Your task to perform on an android device: Go to sound settings Image 0: 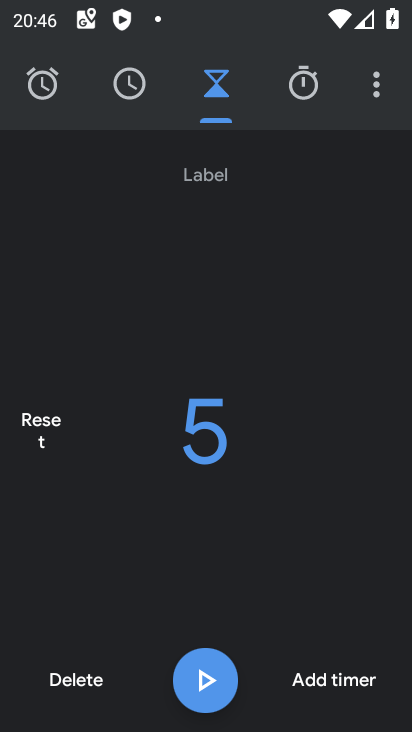
Step 0: click (393, 86)
Your task to perform on an android device: Go to sound settings Image 1: 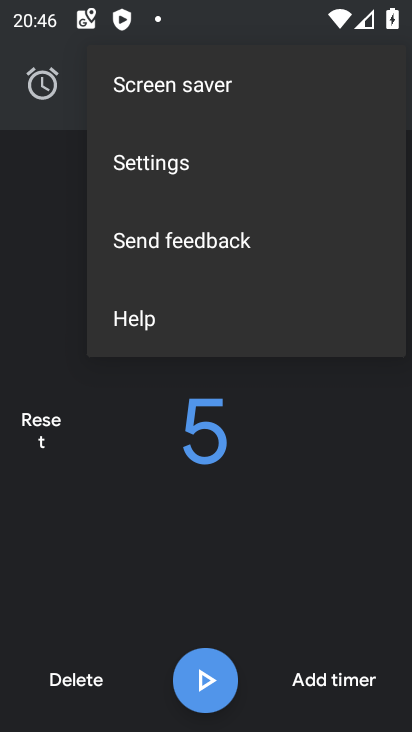
Step 1: click (161, 173)
Your task to perform on an android device: Go to sound settings Image 2: 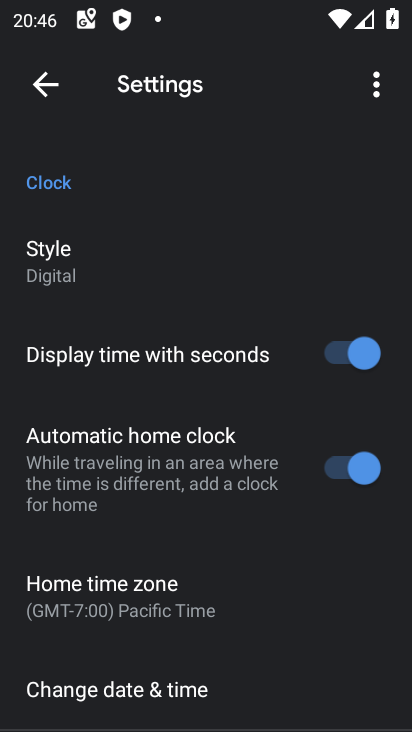
Step 2: drag from (122, 684) to (152, 282)
Your task to perform on an android device: Go to sound settings Image 3: 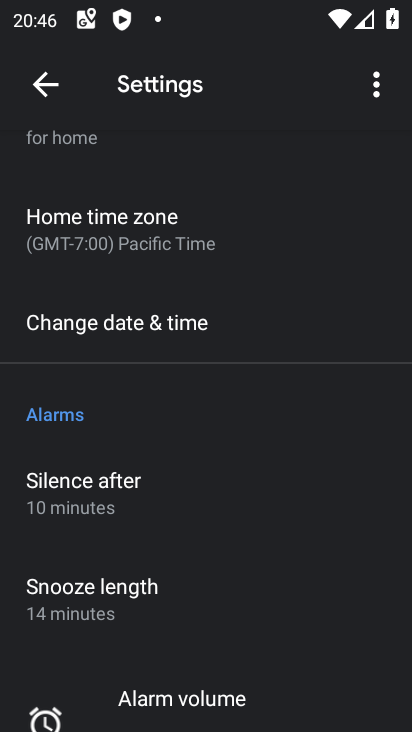
Step 3: drag from (174, 587) to (262, 198)
Your task to perform on an android device: Go to sound settings Image 4: 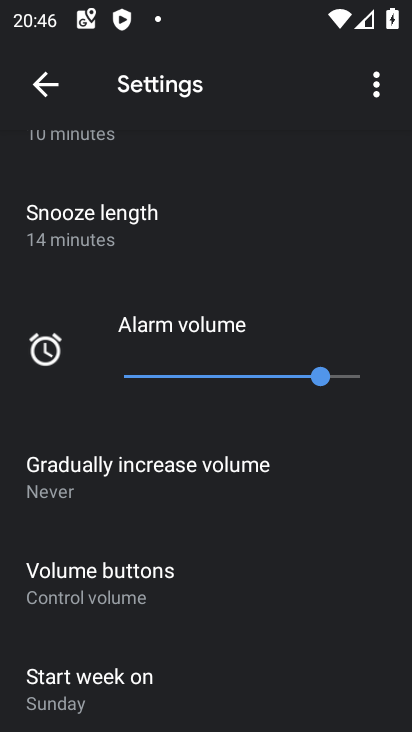
Step 4: drag from (184, 588) to (182, 66)
Your task to perform on an android device: Go to sound settings Image 5: 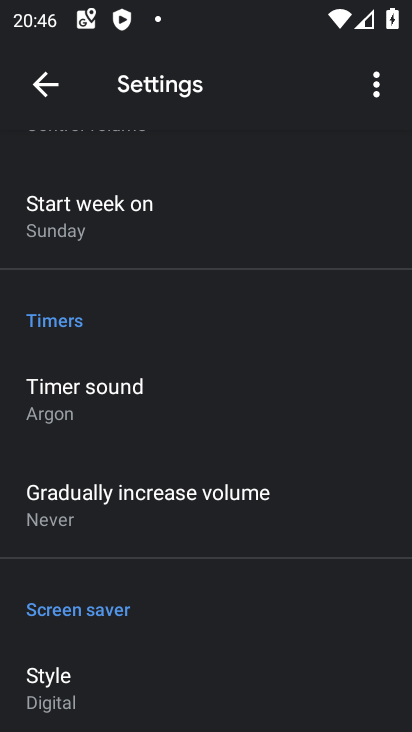
Step 5: drag from (198, 239) to (147, 658)
Your task to perform on an android device: Go to sound settings Image 6: 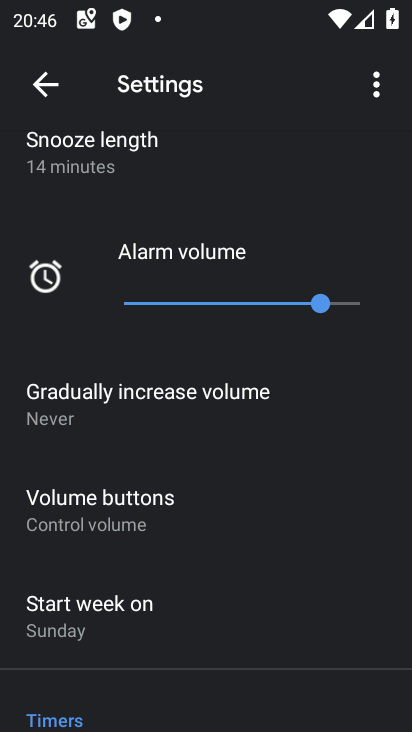
Step 6: drag from (192, 217) to (168, 564)
Your task to perform on an android device: Go to sound settings Image 7: 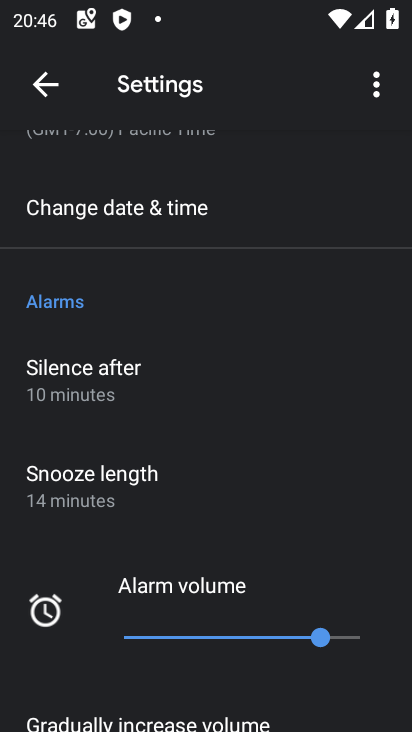
Step 7: drag from (108, 593) to (200, 259)
Your task to perform on an android device: Go to sound settings Image 8: 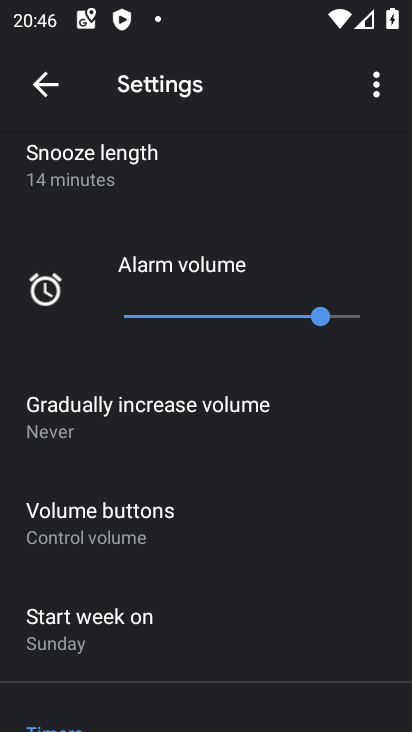
Step 8: press home button
Your task to perform on an android device: Go to sound settings Image 9: 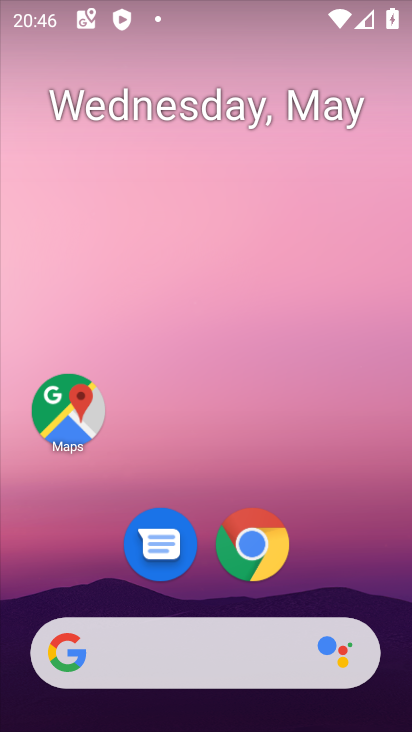
Step 9: drag from (203, 597) to (156, 82)
Your task to perform on an android device: Go to sound settings Image 10: 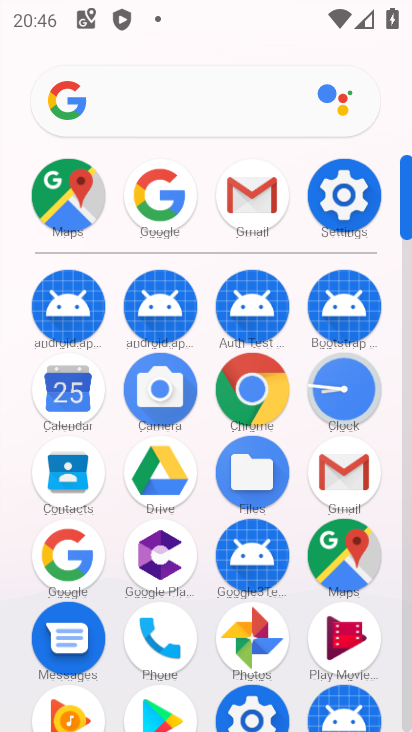
Step 10: click (328, 179)
Your task to perform on an android device: Go to sound settings Image 11: 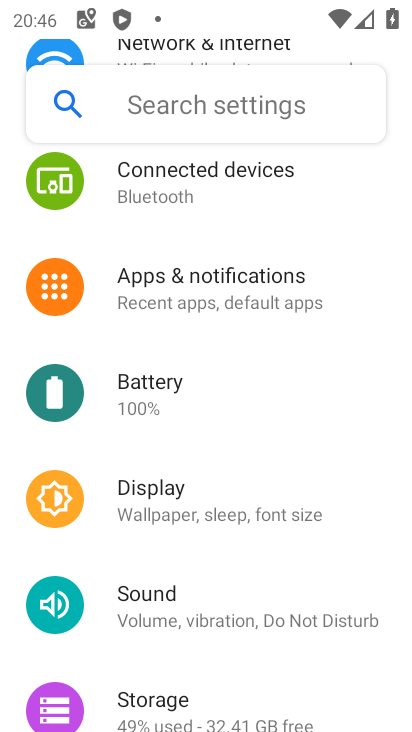
Step 11: click (151, 596)
Your task to perform on an android device: Go to sound settings Image 12: 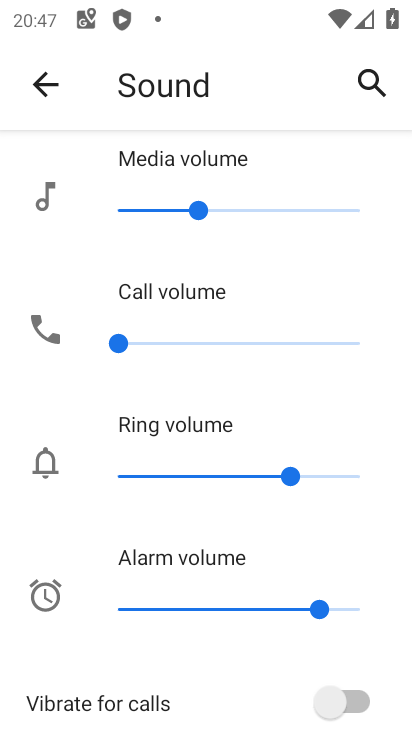
Step 12: task complete